Your task to perform on an android device: delete browsing data in the chrome app Image 0: 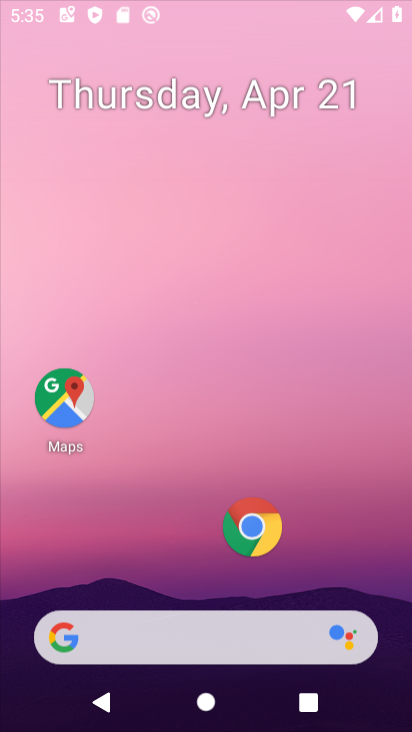
Step 0: click (171, 541)
Your task to perform on an android device: delete browsing data in the chrome app Image 1: 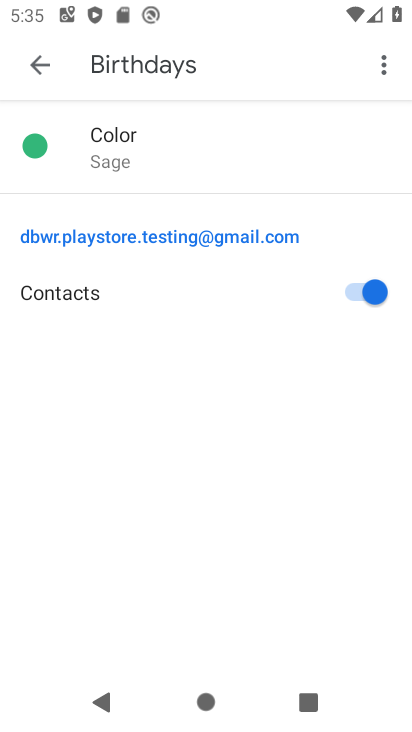
Step 1: drag from (343, 6) to (263, 537)
Your task to perform on an android device: delete browsing data in the chrome app Image 2: 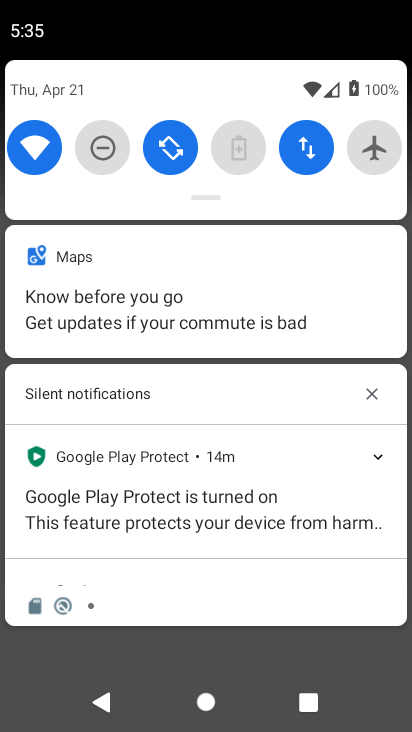
Step 2: press back button
Your task to perform on an android device: delete browsing data in the chrome app Image 3: 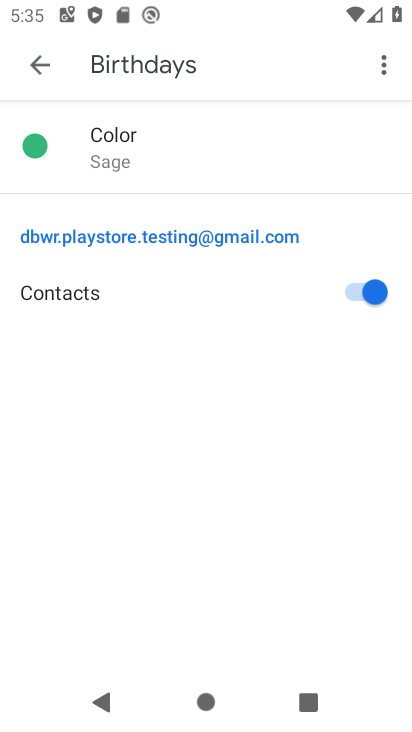
Step 3: press back button
Your task to perform on an android device: delete browsing data in the chrome app Image 4: 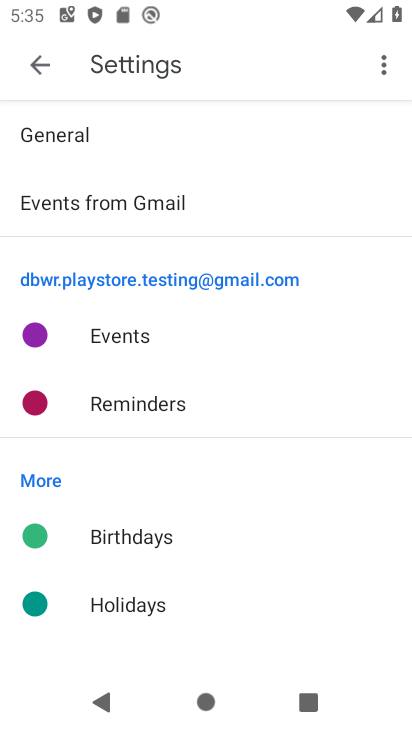
Step 4: press back button
Your task to perform on an android device: delete browsing data in the chrome app Image 5: 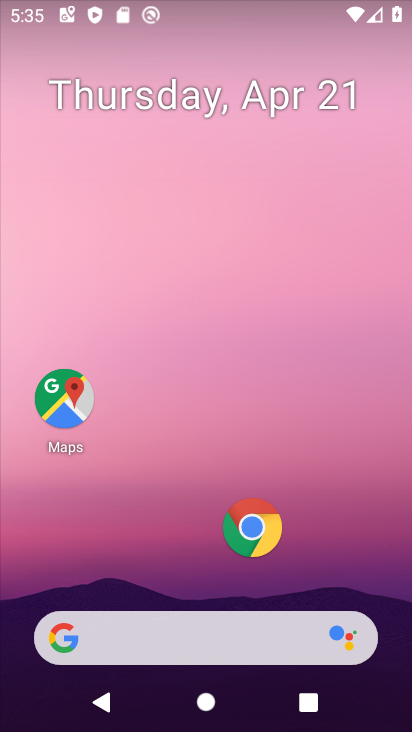
Step 5: click (254, 528)
Your task to perform on an android device: delete browsing data in the chrome app Image 6: 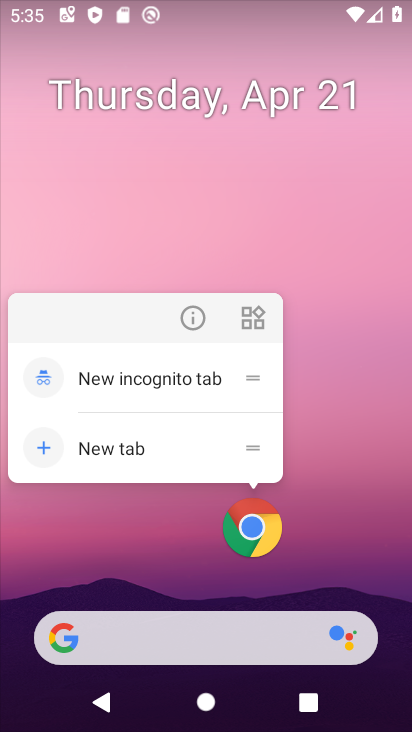
Step 6: click (254, 532)
Your task to perform on an android device: delete browsing data in the chrome app Image 7: 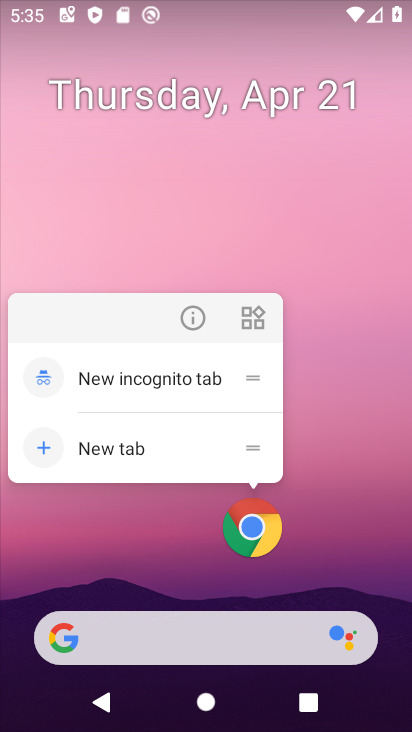
Step 7: click (260, 532)
Your task to perform on an android device: delete browsing data in the chrome app Image 8: 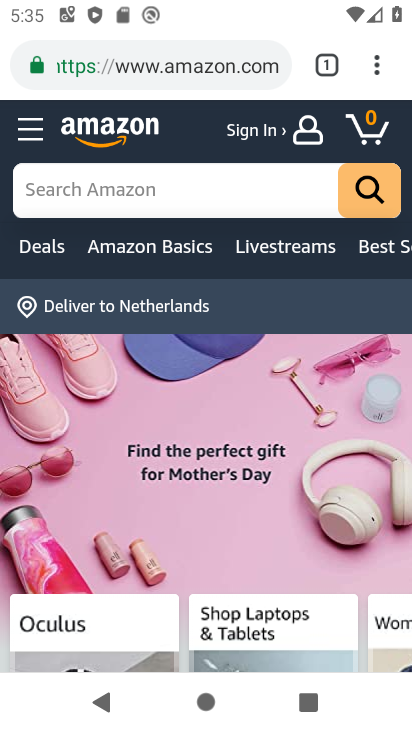
Step 8: drag from (375, 73) to (182, 444)
Your task to perform on an android device: delete browsing data in the chrome app Image 9: 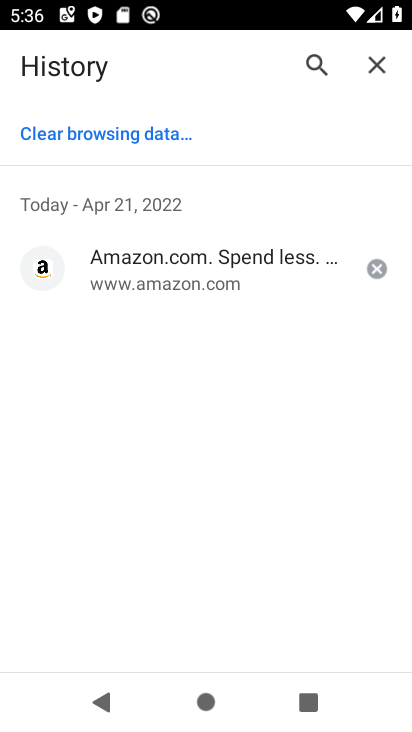
Step 9: click (109, 136)
Your task to perform on an android device: delete browsing data in the chrome app Image 10: 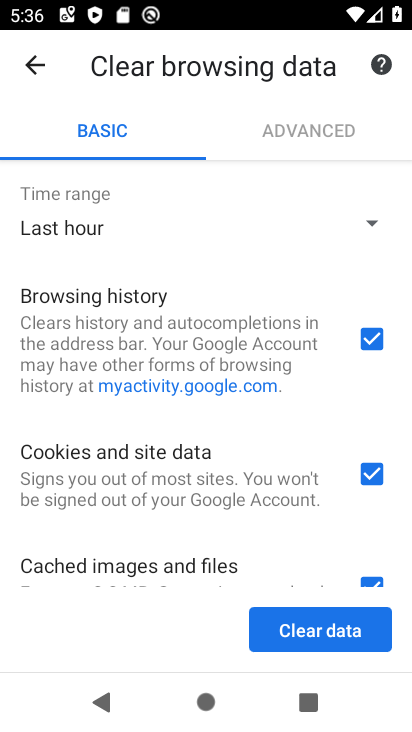
Step 10: drag from (146, 527) to (227, 281)
Your task to perform on an android device: delete browsing data in the chrome app Image 11: 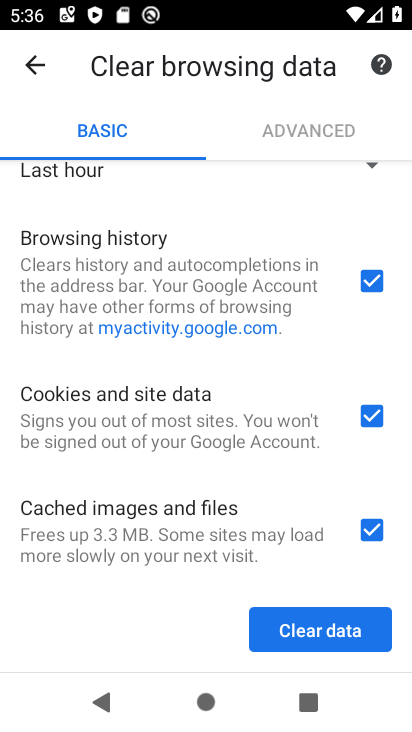
Step 11: click (308, 632)
Your task to perform on an android device: delete browsing data in the chrome app Image 12: 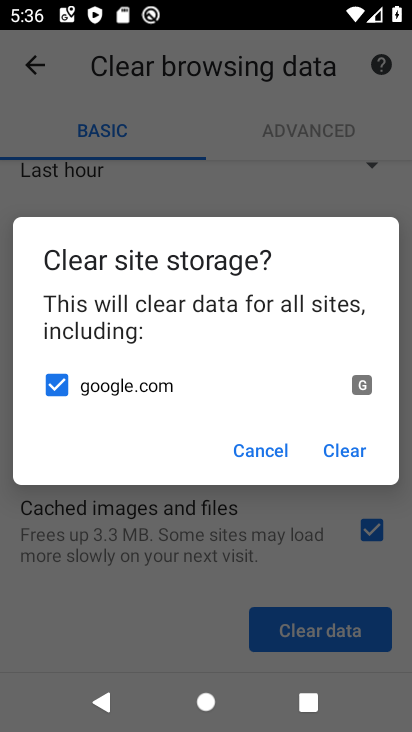
Step 12: click (342, 447)
Your task to perform on an android device: delete browsing data in the chrome app Image 13: 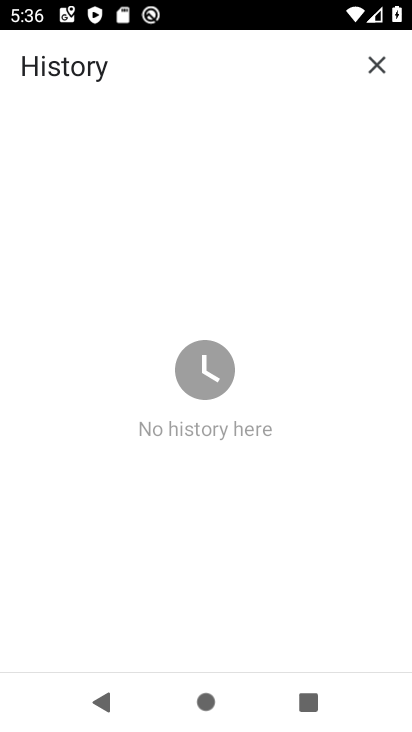
Step 13: task complete